Your task to perform on an android device: turn on the 12-hour format for clock Image 0: 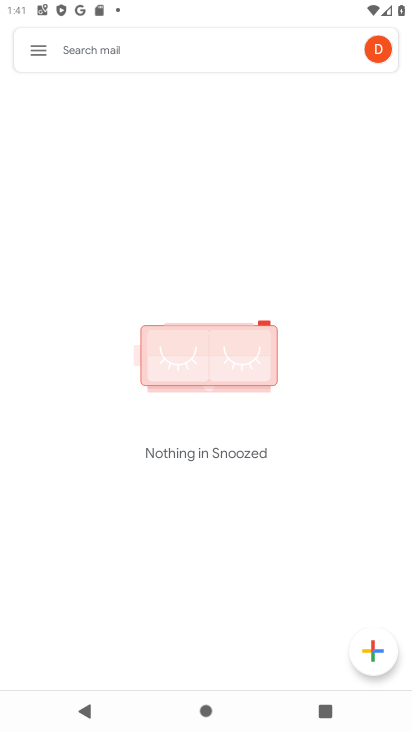
Step 0: press home button
Your task to perform on an android device: turn on the 12-hour format for clock Image 1: 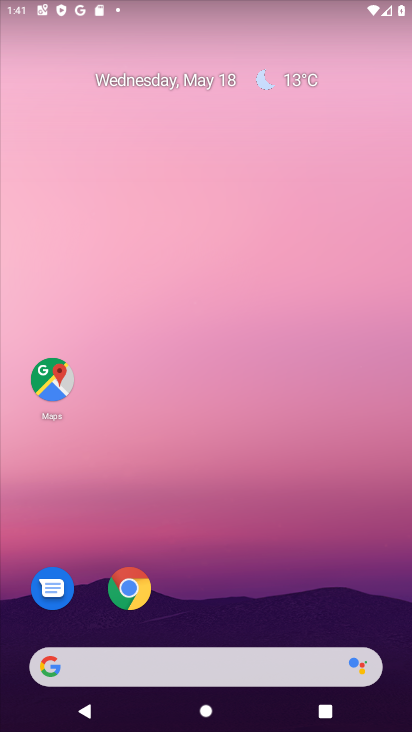
Step 1: drag from (211, 588) to (280, 142)
Your task to perform on an android device: turn on the 12-hour format for clock Image 2: 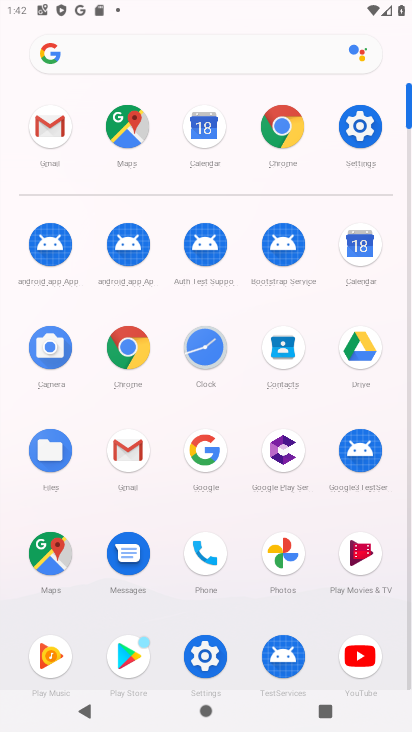
Step 2: click (198, 342)
Your task to perform on an android device: turn on the 12-hour format for clock Image 3: 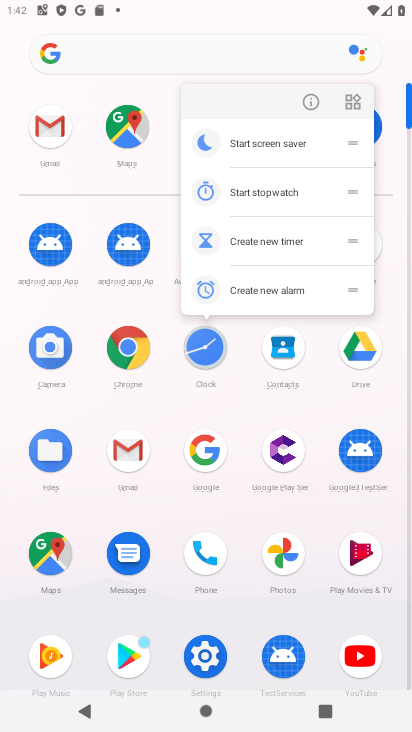
Step 3: click (307, 104)
Your task to perform on an android device: turn on the 12-hour format for clock Image 4: 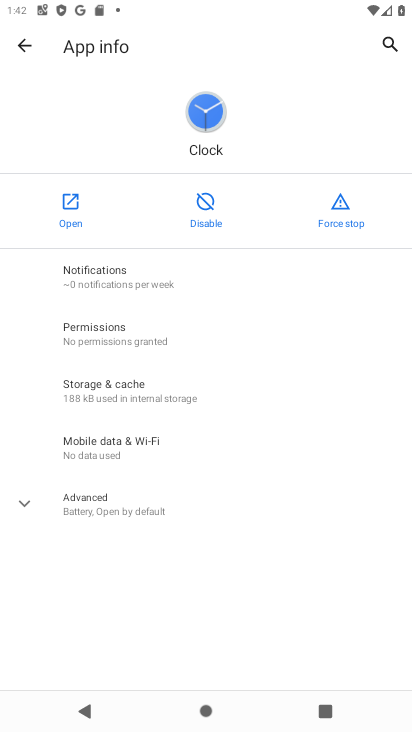
Step 4: click (66, 214)
Your task to perform on an android device: turn on the 12-hour format for clock Image 5: 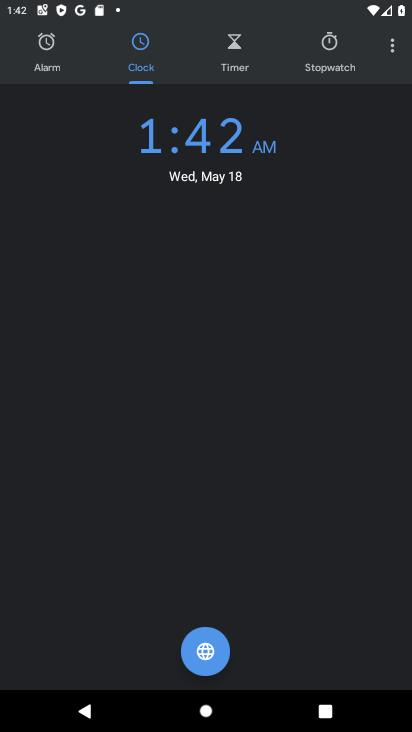
Step 5: click (386, 60)
Your task to perform on an android device: turn on the 12-hour format for clock Image 6: 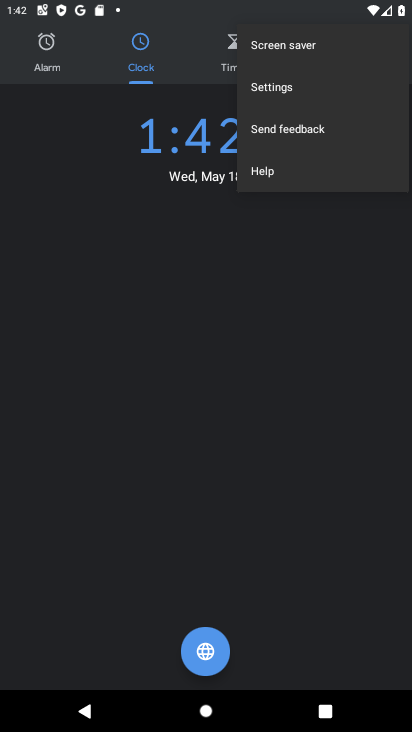
Step 6: click (276, 91)
Your task to perform on an android device: turn on the 12-hour format for clock Image 7: 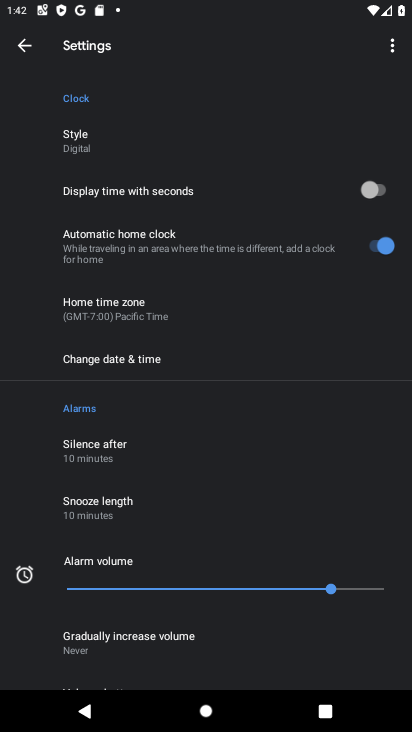
Step 7: click (154, 354)
Your task to perform on an android device: turn on the 12-hour format for clock Image 8: 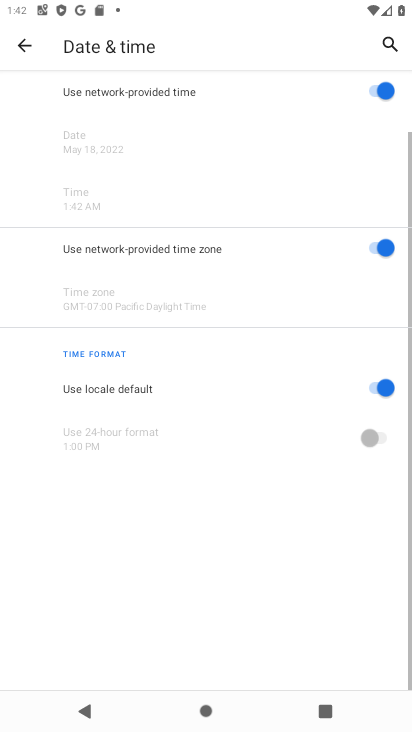
Step 8: task complete